Your task to perform on an android device: install app "NewsBreak: Local News & Alerts" Image 0: 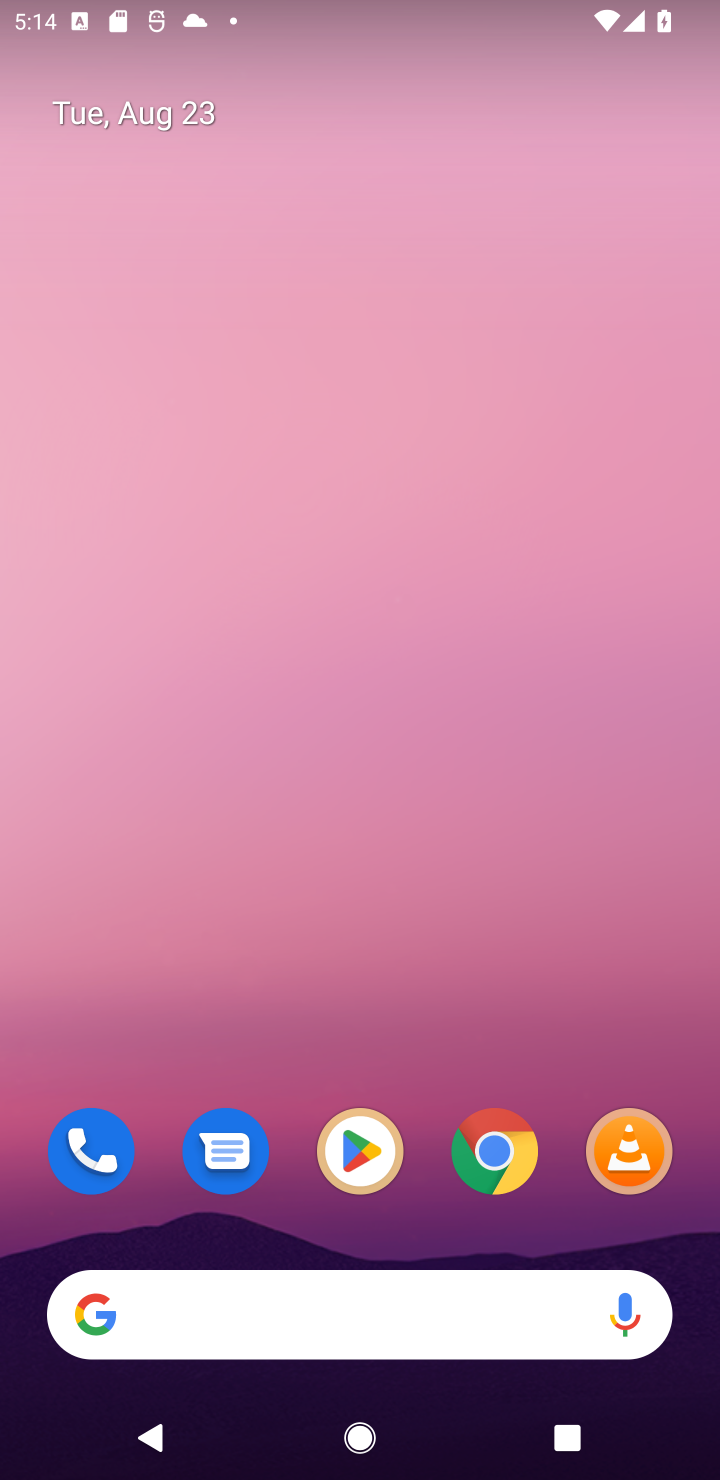
Step 0: click (361, 1146)
Your task to perform on an android device: install app "NewsBreak: Local News & Alerts" Image 1: 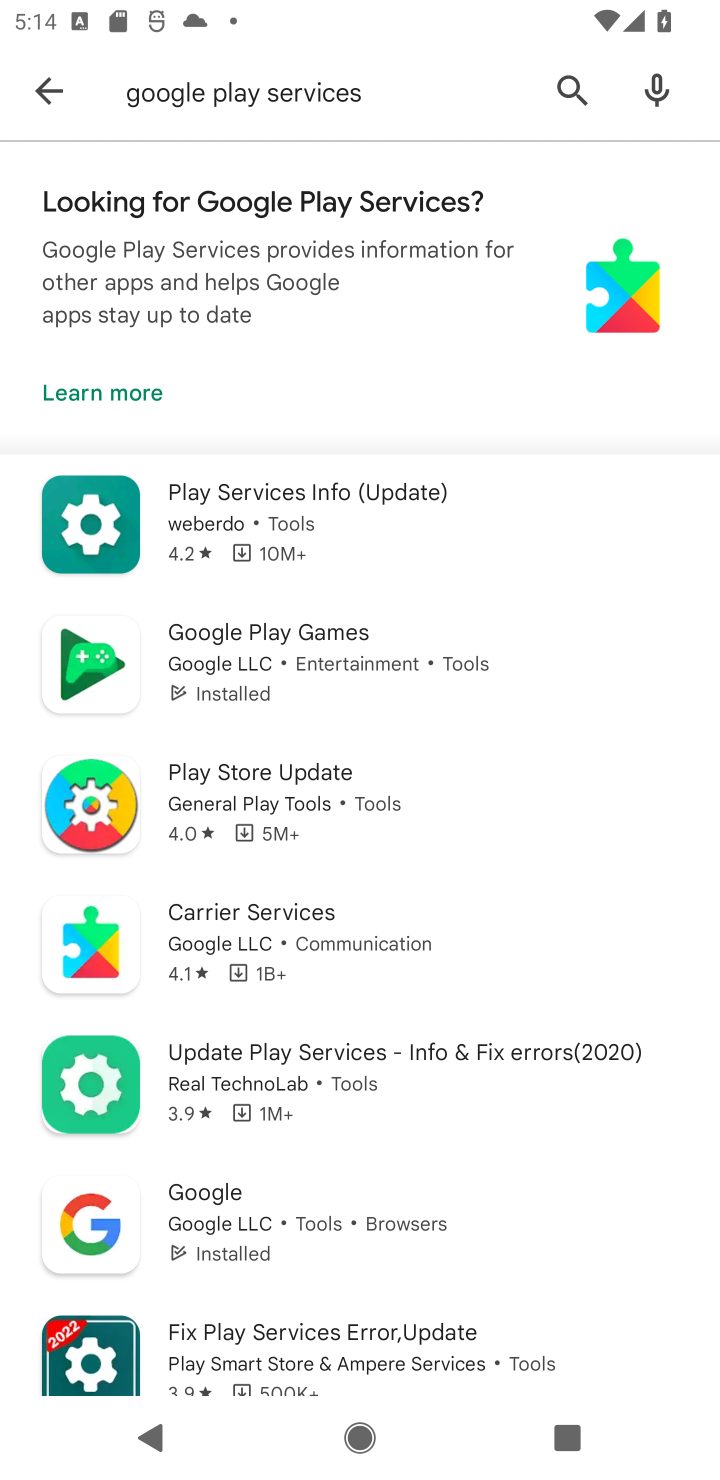
Step 1: click (571, 85)
Your task to perform on an android device: install app "NewsBreak: Local News & Alerts" Image 2: 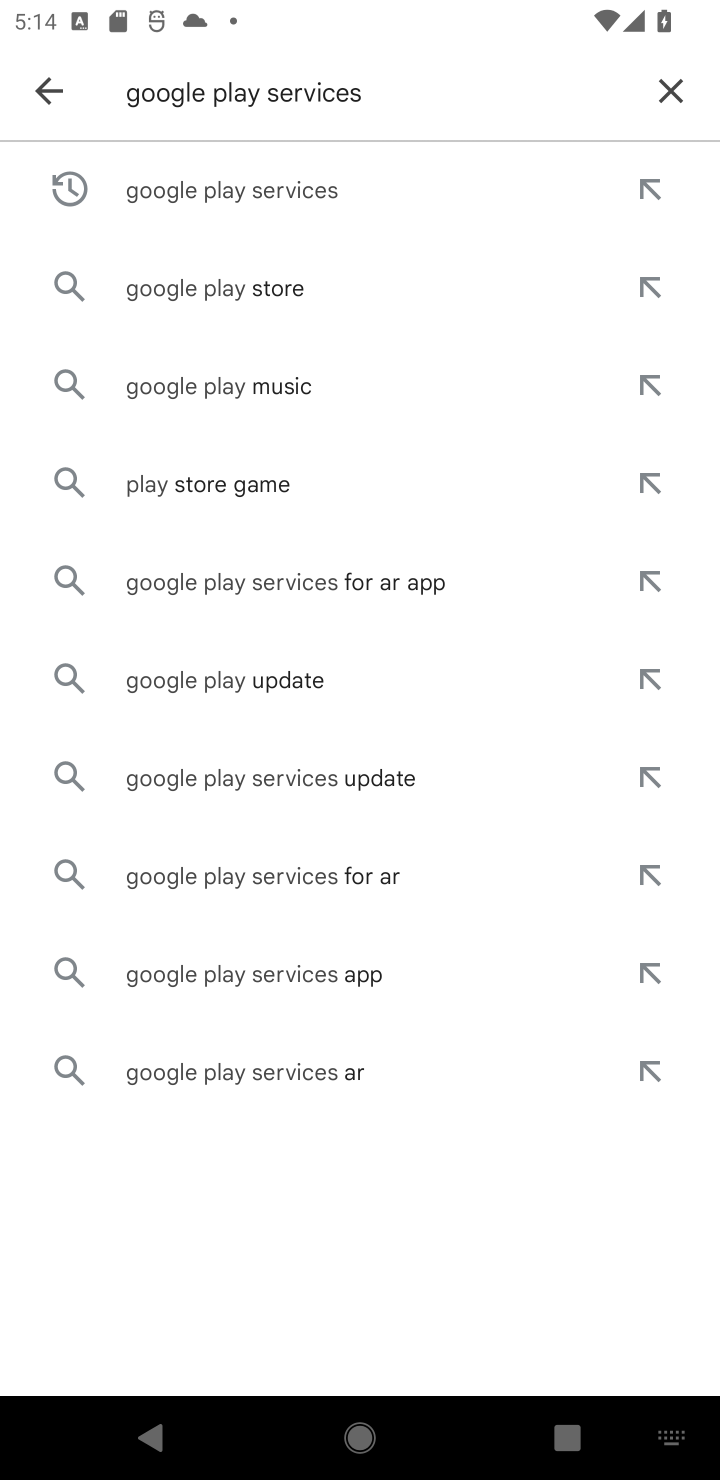
Step 2: click (671, 86)
Your task to perform on an android device: install app "NewsBreak: Local News & Alerts" Image 3: 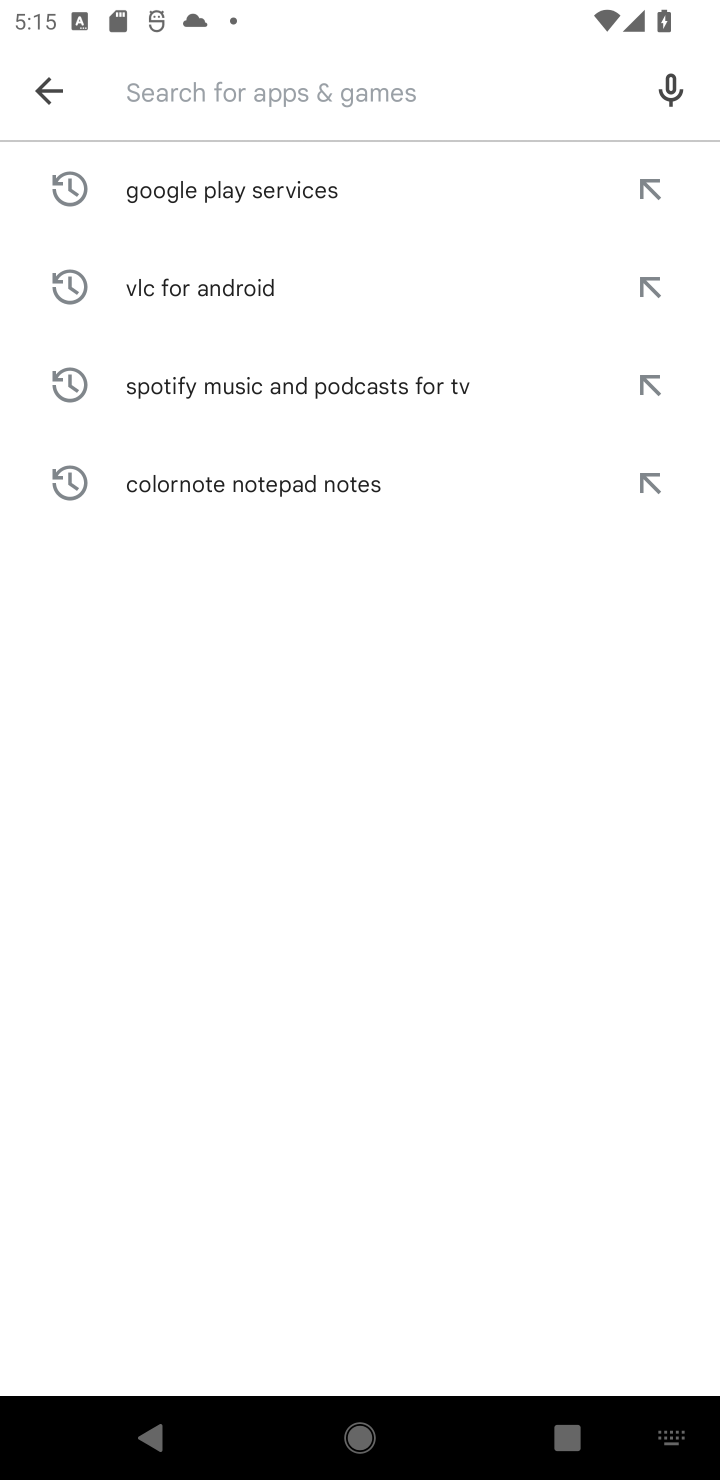
Step 3: type "NewsBreak: Local News & Alerts"
Your task to perform on an android device: install app "NewsBreak: Local News & Alerts" Image 4: 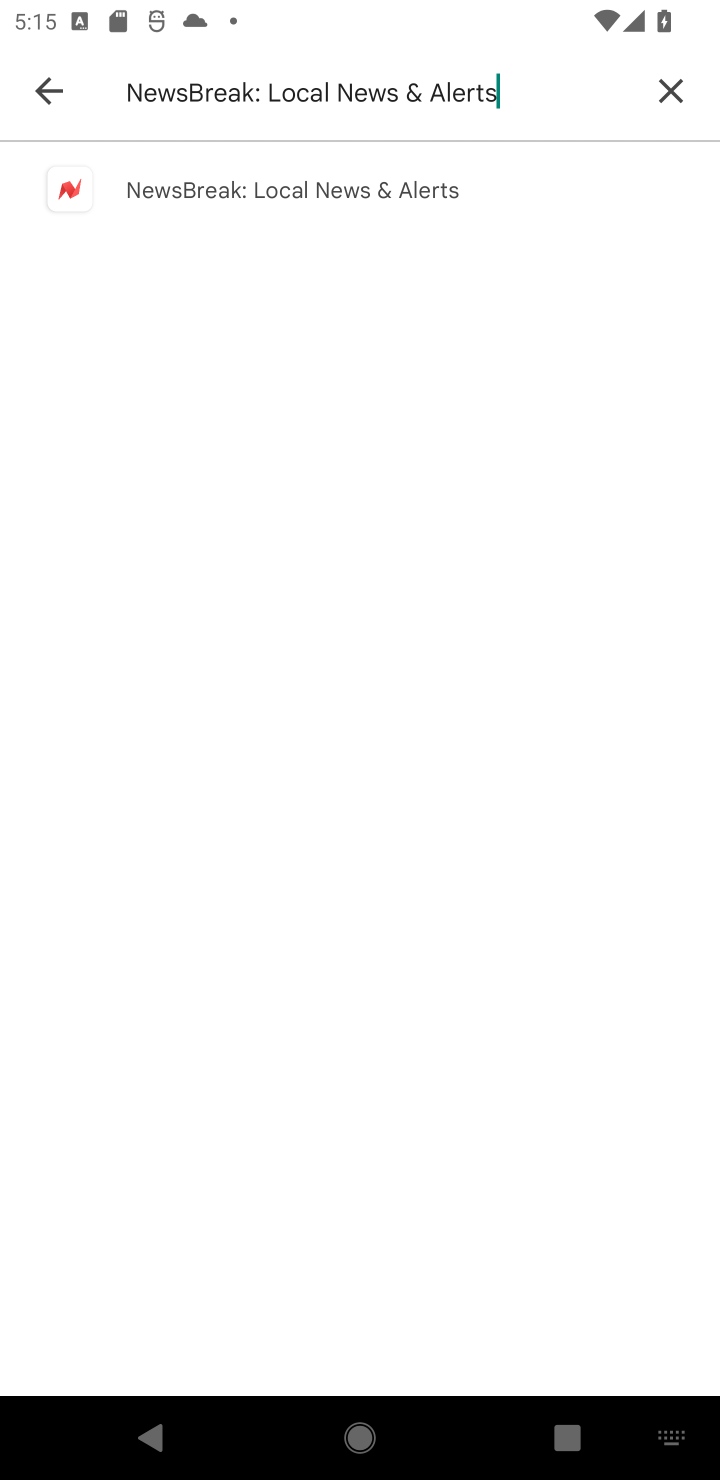
Step 4: click (273, 197)
Your task to perform on an android device: install app "NewsBreak: Local News & Alerts" Image 5: 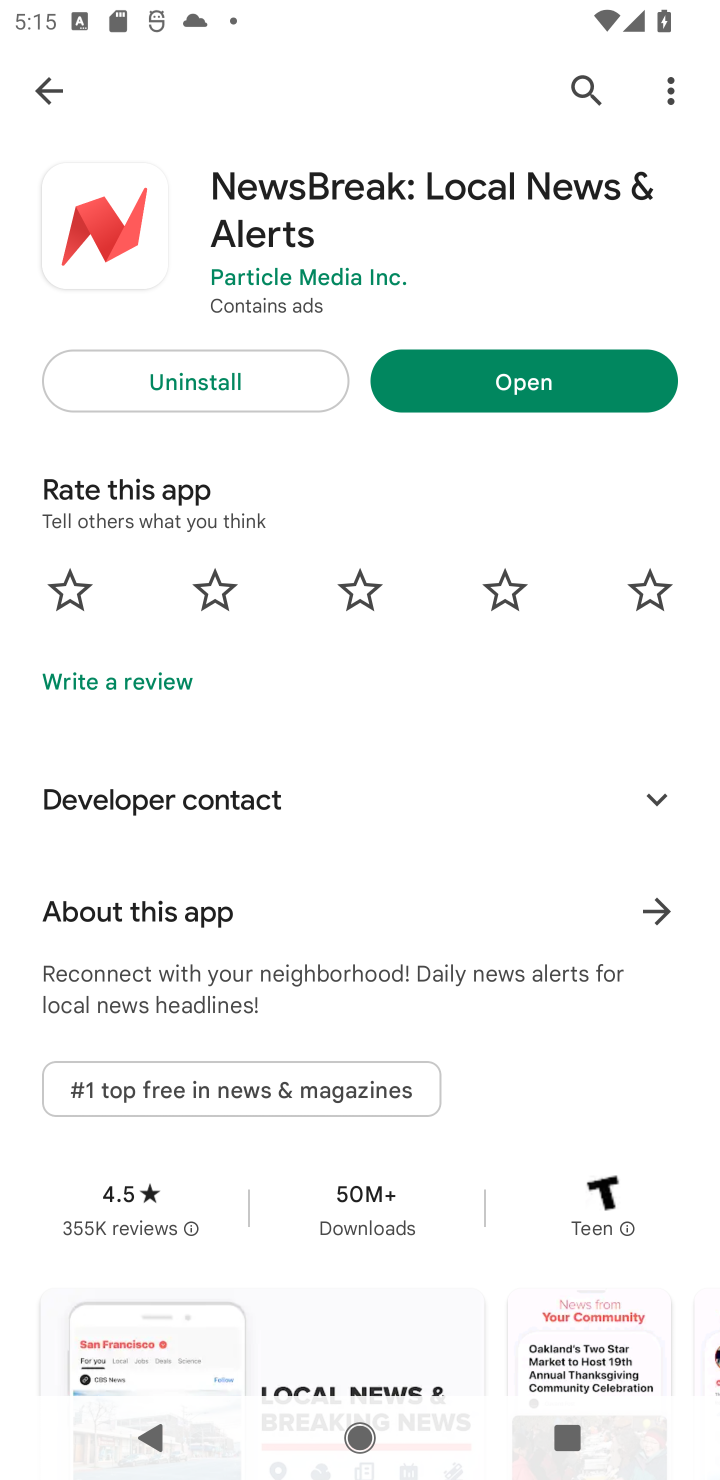
Step 5: task complete